Your task to perform on an android device: turn off location history Image 0: 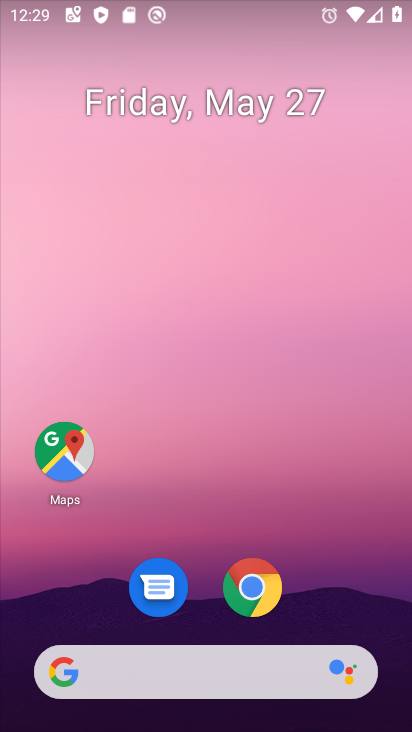
Step 0: drag from (279, 686) to (324, 173)
Your task to perform on an android device: turn off location history Image 1: 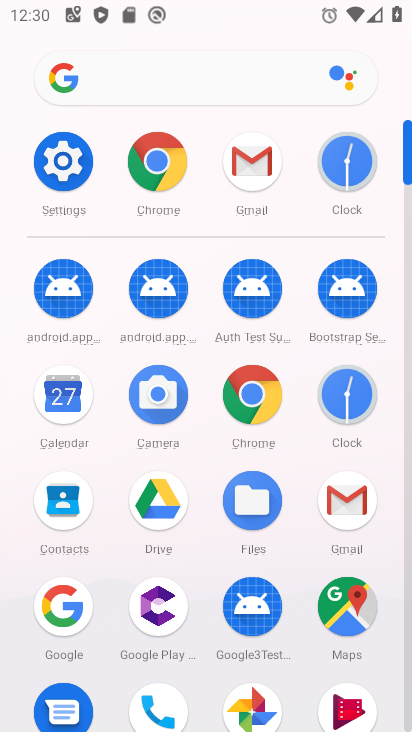
Step 1: click (59, 172)
Your task to perform on an android device: turn off location history Image 2: 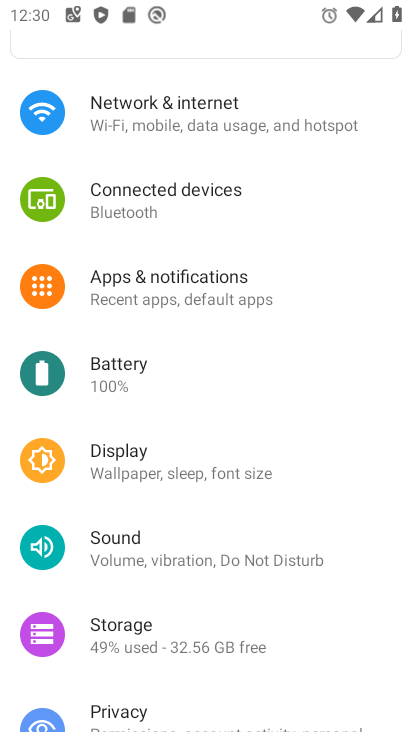
Step 2: drag from (141, 134) to (108, 278)
Your task to perform on an android device: turn off location history Image 3: 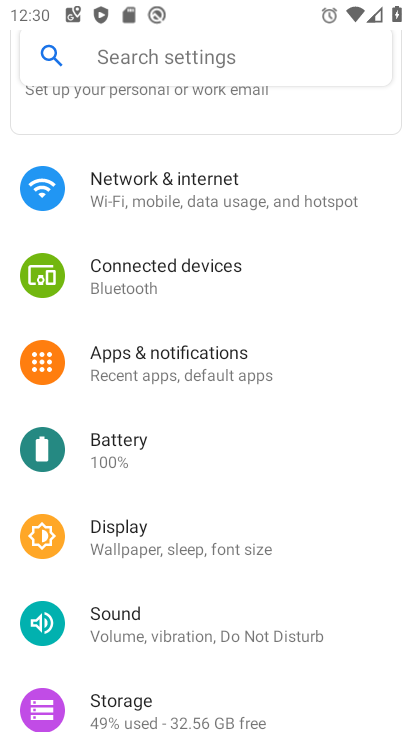
Step 3: click (150, 62)
Your task to perform on an android device: turn off location history Image 4: 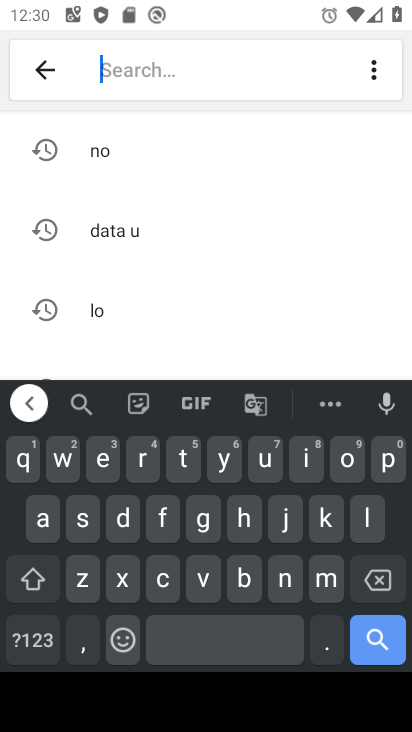
Step 4: click (111, 315)
Your task to perform on an android device: turn off location history Image 5: 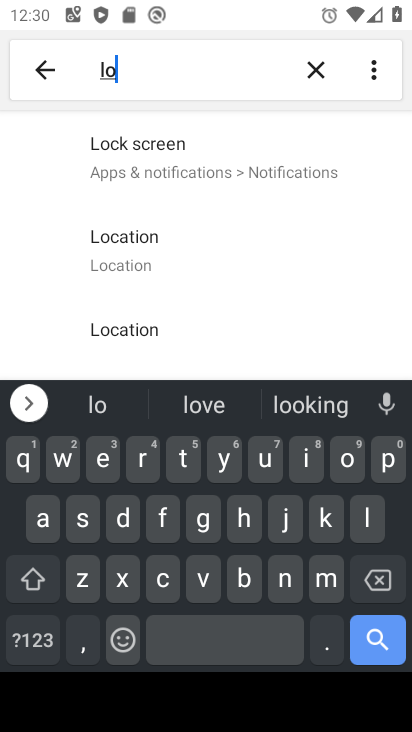
Step 5: click (119, 252)
Your task to perform on an android device: turn off location history Image 6: 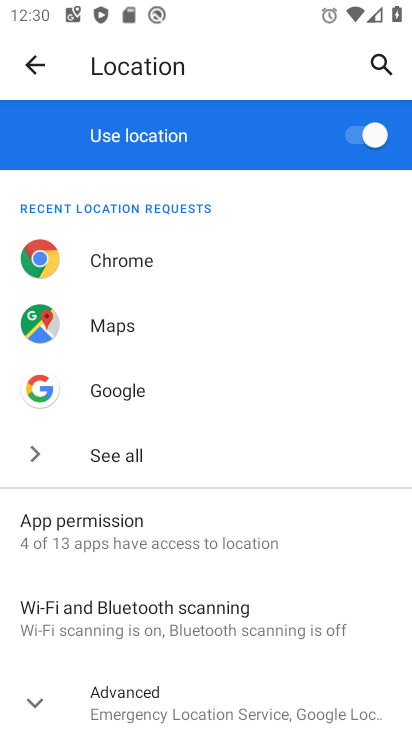
Step 6: drag from (161, 675) to (235, 364)
Your task to perform on an android device: turn off location history Image 7: 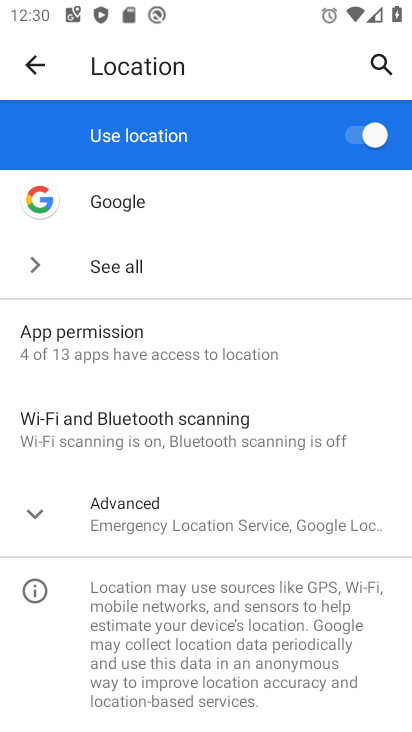
Step 7: click (44, 535)
Your task to perform on an android device: turn off location history Image 8: 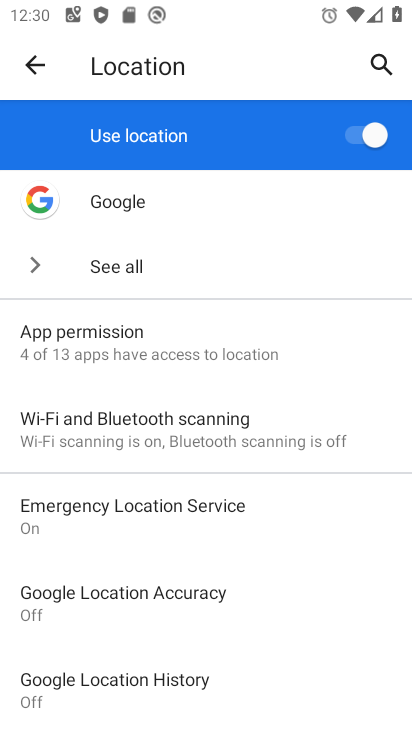
Step 8: click (153, 680)
Your task to perform on an android device: turn off location history Image 9: 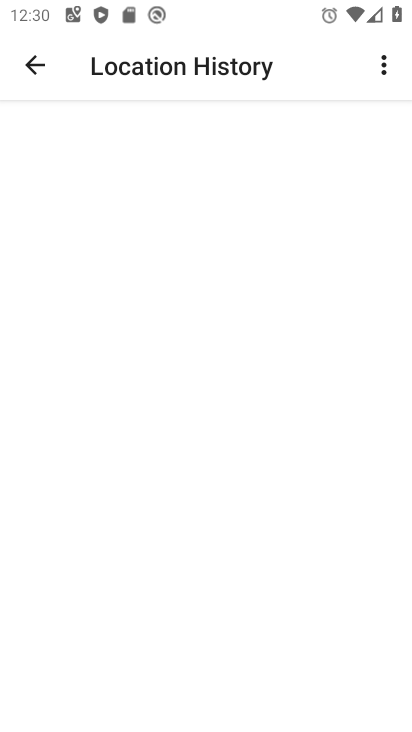
Step 9: task complete